Your task to perform on an android device: turn on location history Image 0: 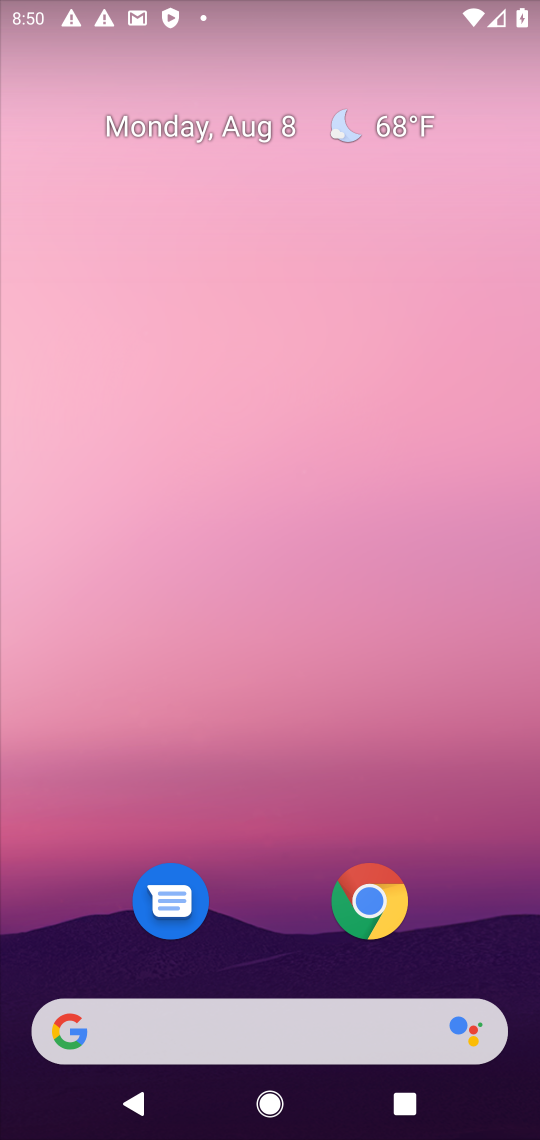
Step 0: drag from (302, 429) to (323, 299)
Your task to perform on an android device: turn on location history Image 1: 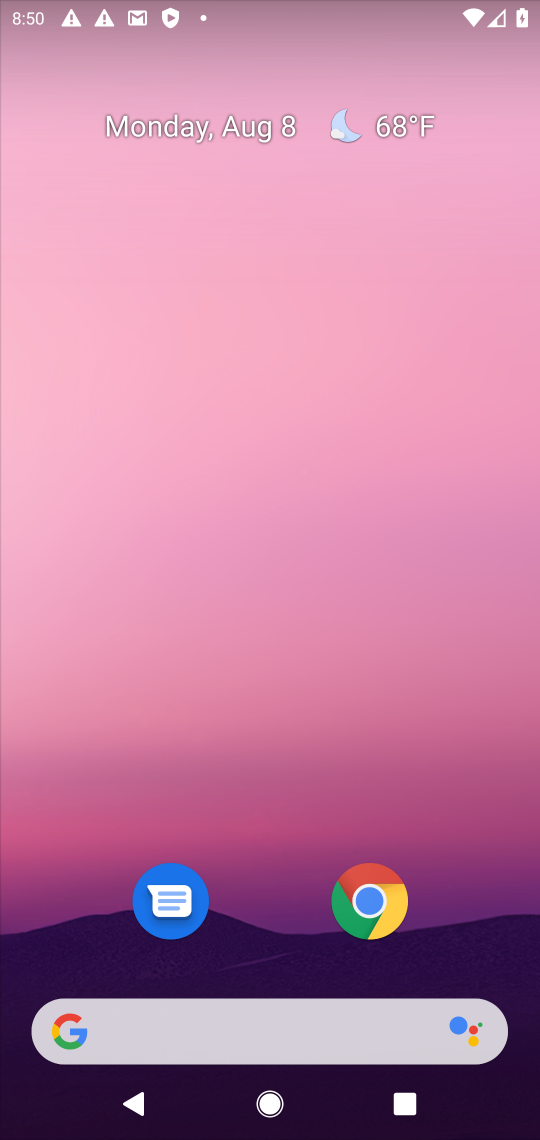
Step 1: drag from (253, 775) to (267, 156)
Your task to perform on an android device: turn on location history Image 2: 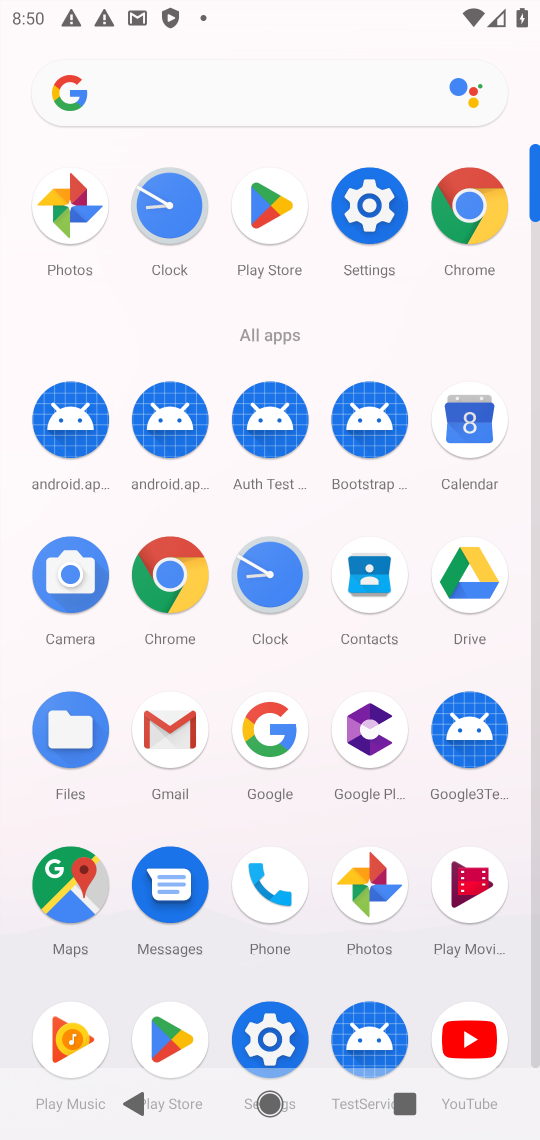
Step 2: click (363, 216)
Your task to perform on an android device: turn on location history Image 3: 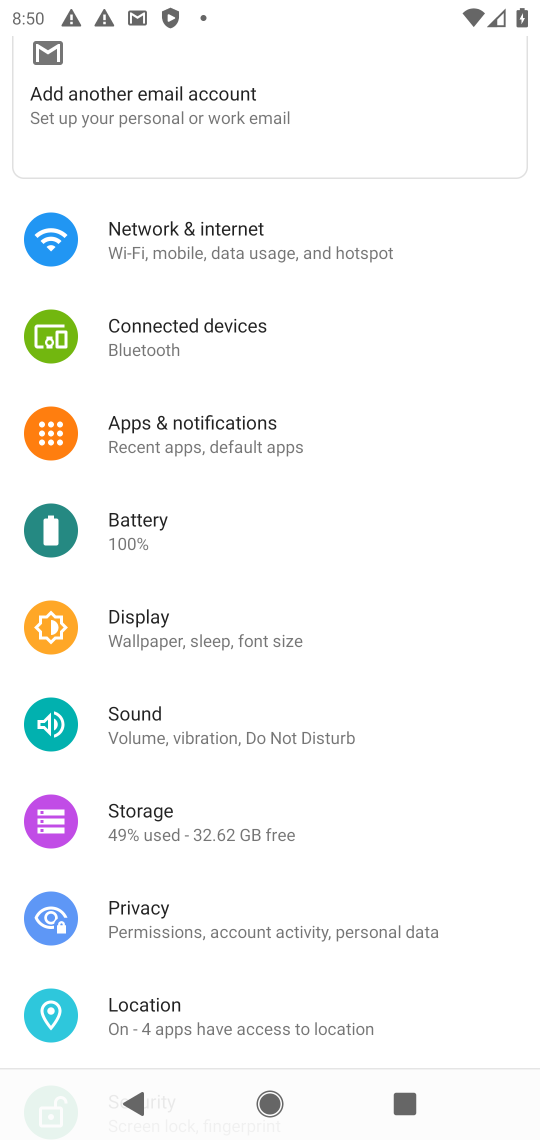
Step 3: click (135, 1013)
Your task to perform on an android device: turn on location history Image 4: 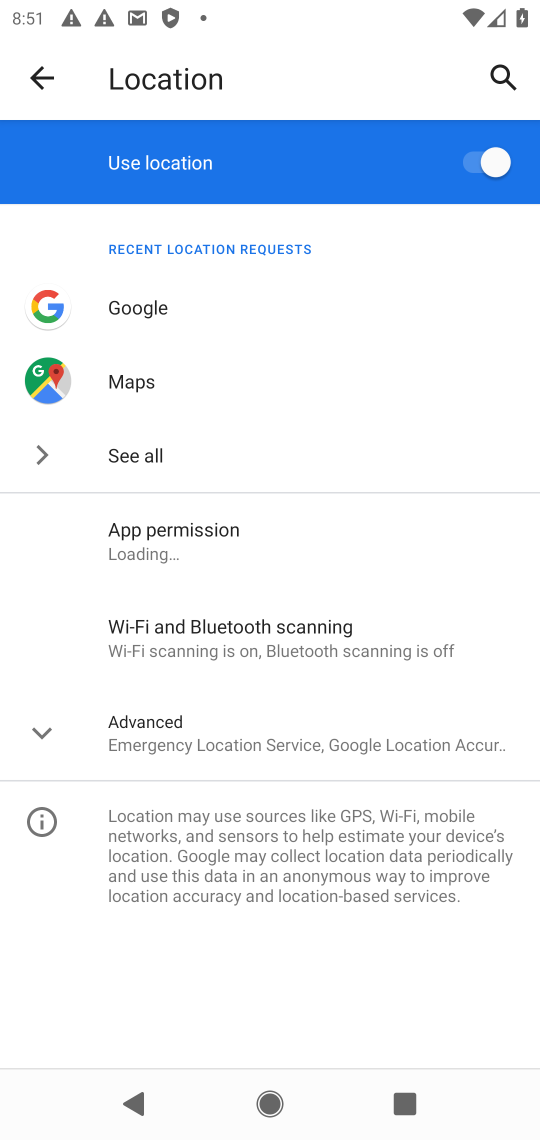
Step 4: click (188, 734)
Your task to perform on an android device: turn on location history Image 5: 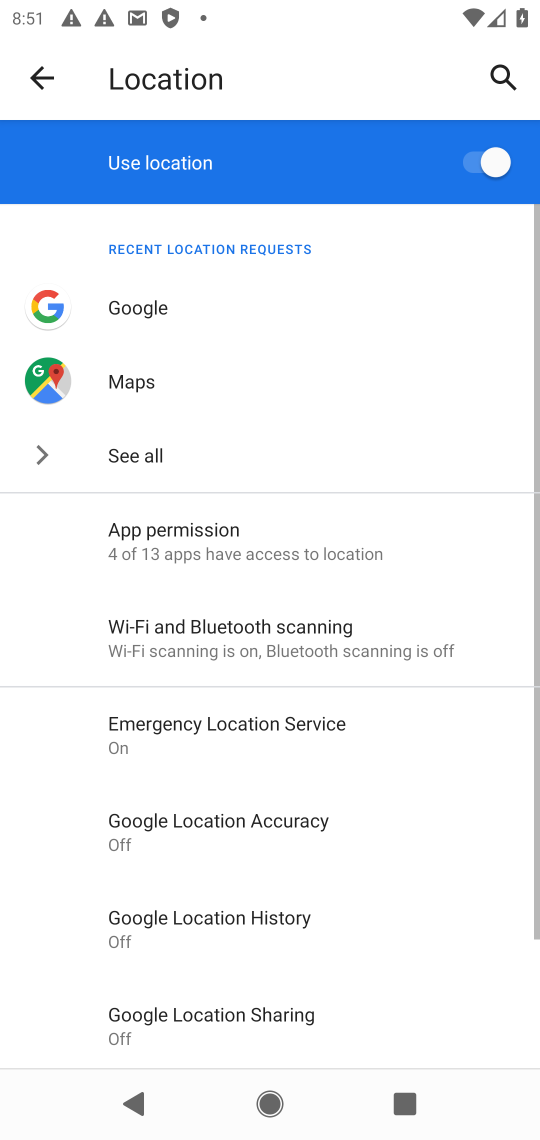
Step 5: click (207, 928)
Your task to perform on an android device: turn on location history Image 6: 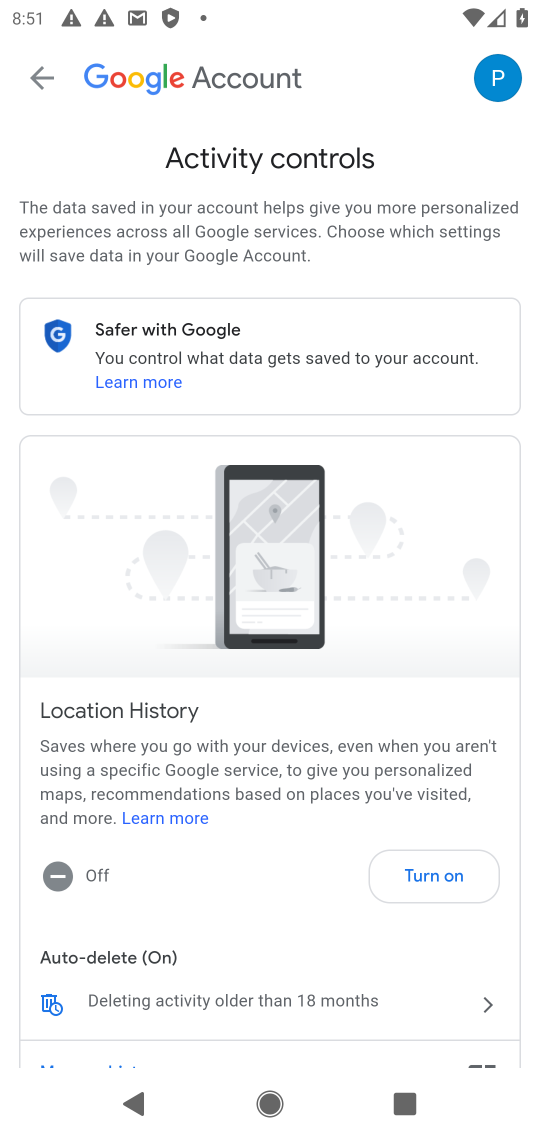
Step 6: click (441, 867)
Your task to perform on an android device: turn on location history Image 7: 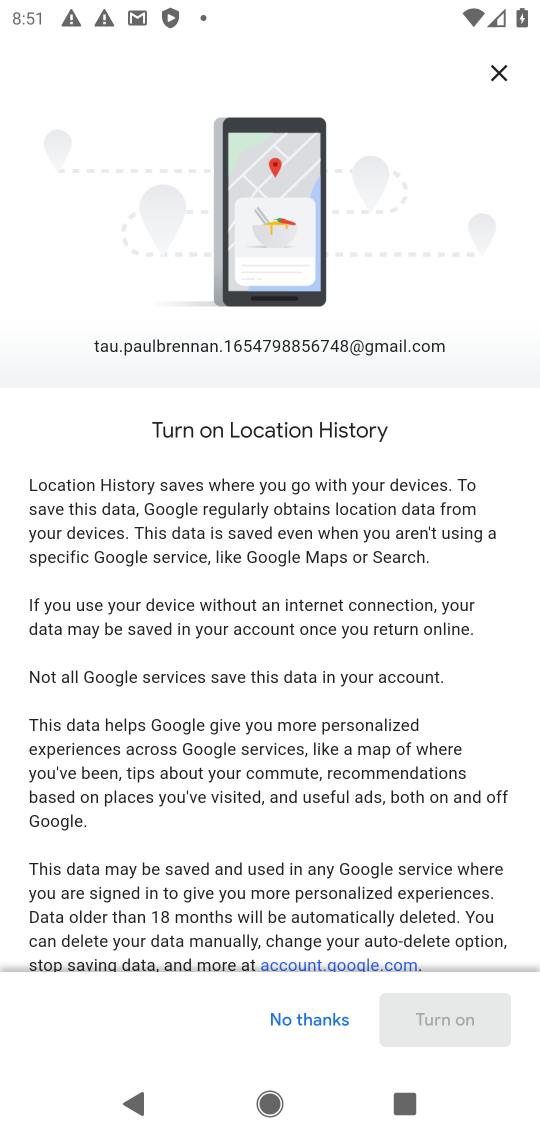
Step 7: drag from (390, 821) to (435, 316)
Your task to perform on an android device: turn on location history Image 8: 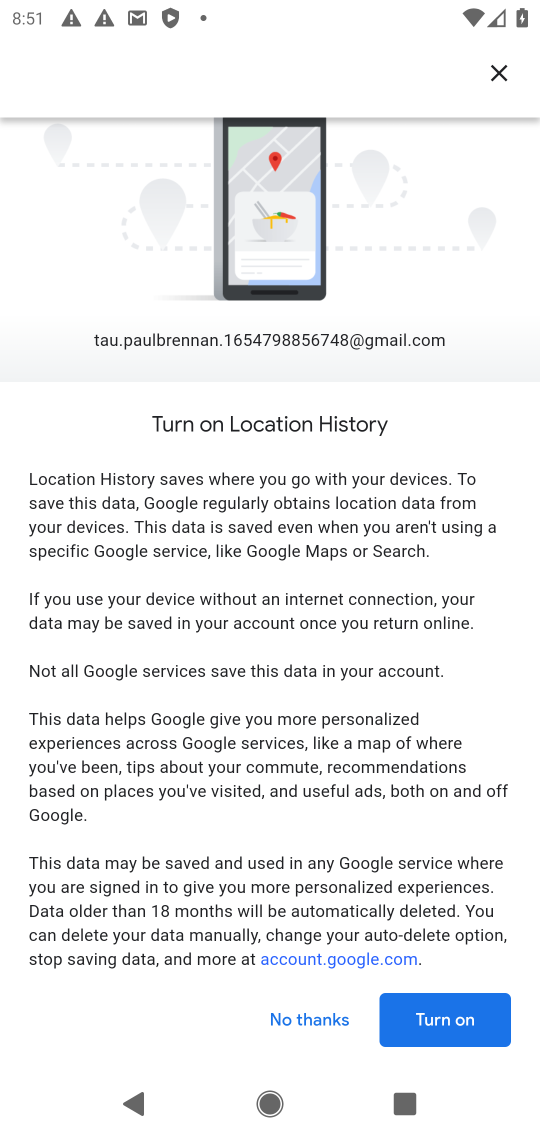
Step 8: drag from (373, 833) to (367, 685)
Your task to perform on an android device: turn on location history Image 9: 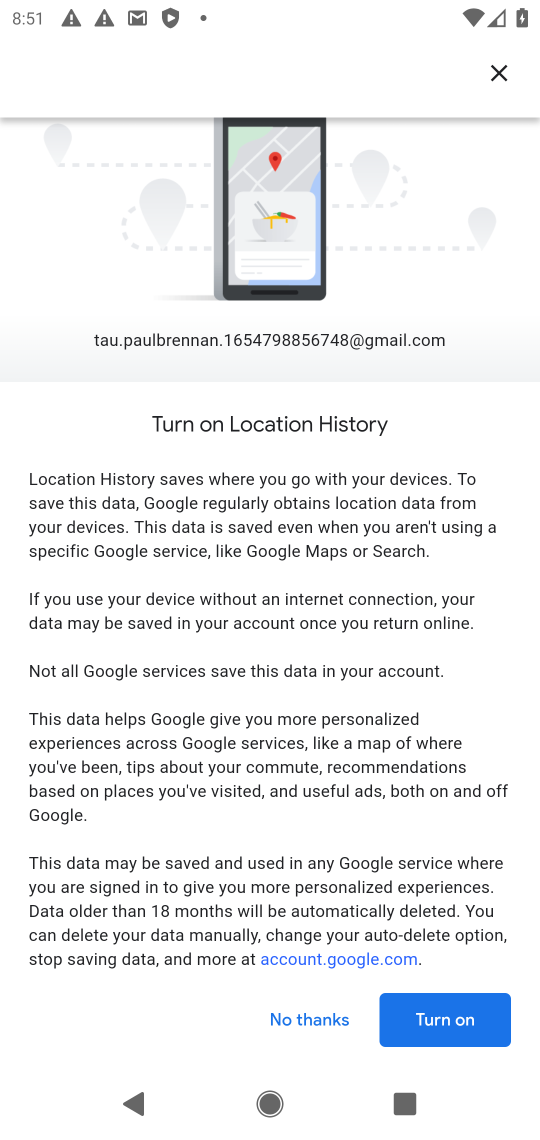
Step 9: click (452, 1005)
Your task to perform on an android device: turn on location history Image 10: 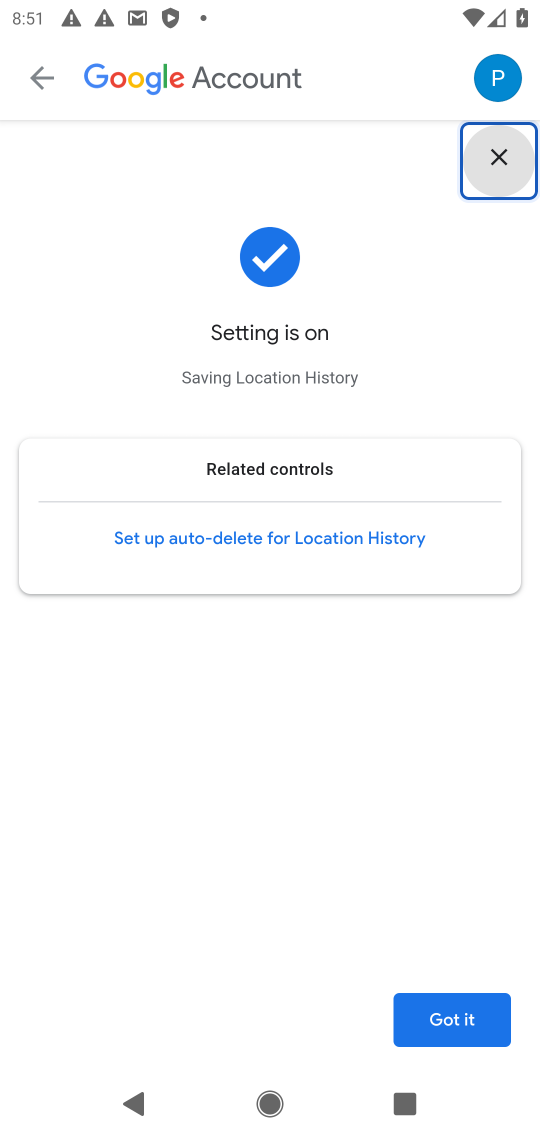
Step 10: click (452, 1005)
Your task to perform on an android device: turn on location history Image 11: 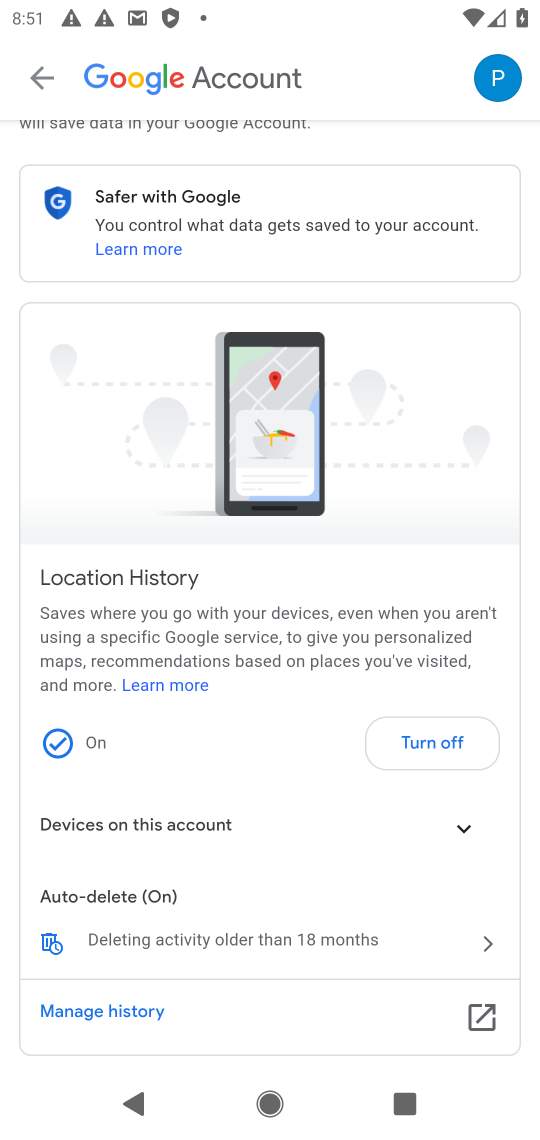
Step 11: task complete